Your task to perform on an android device: Open the calendar and show me this week's events? Image 0: 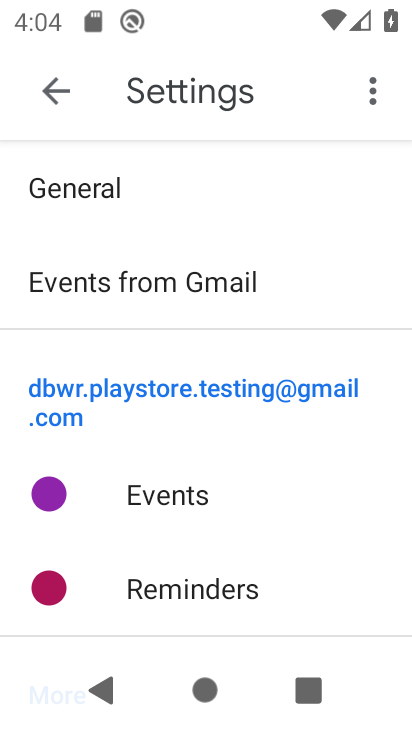
Step 0: press home button
Your task to perform on an android device: Open the calendar and show me this week's events? Image 1: 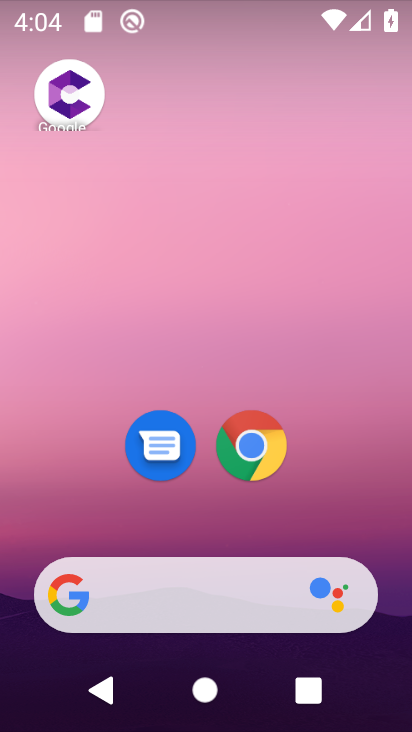
Step 1: drag from (236, 535) to (317, 13)
Your task to perform on an android device: Open the calendar and show me this week's events? Image 2: 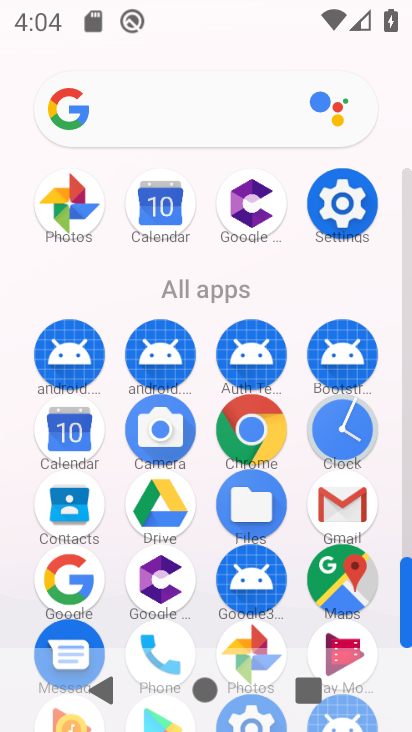
Step 2: click (70, 419)
Your task to perform on an android device: Open the calendar and show me this week's events? Image 3: 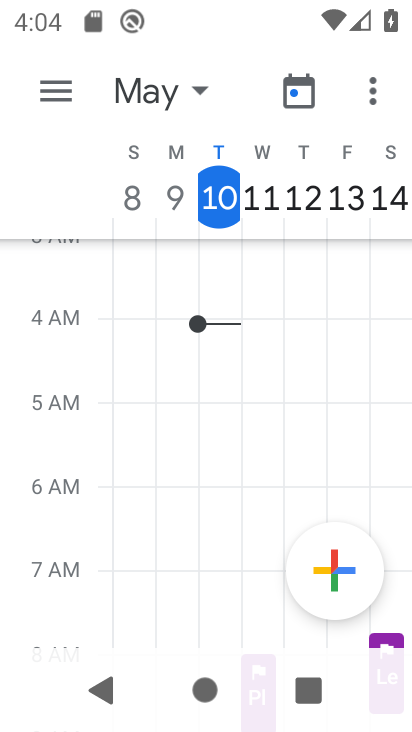
Step 3: task complete